Your task to perform on an android device: set the stopwatch Image 0: 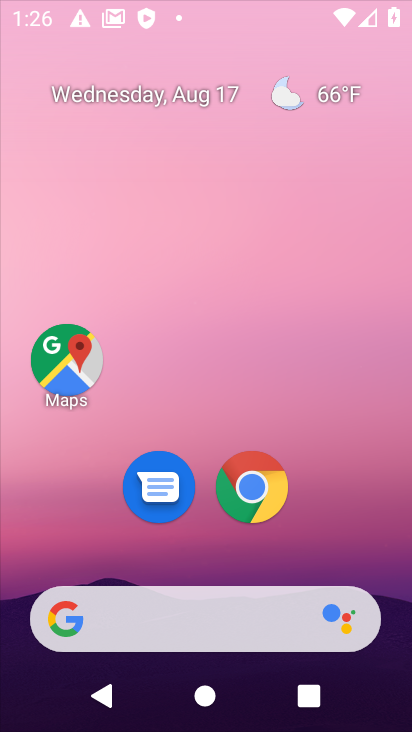
Step 0: press home button
Your task to perform on an android device: set the stopwatch Image 1: 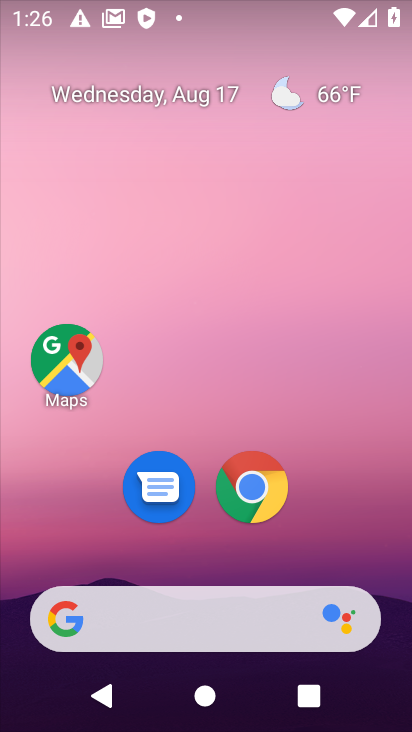
Step 1: drag from (198, 529) to (103, 164)
Your task to perform on an android device: set the stopwatch Image 2: 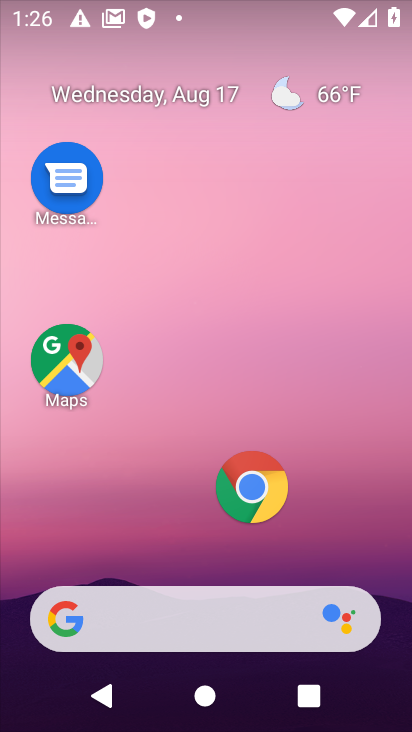
Step 2: drag from (189, 579) to (81, 125)
Your task to perform on an android device: set the stopwatch Image 3: 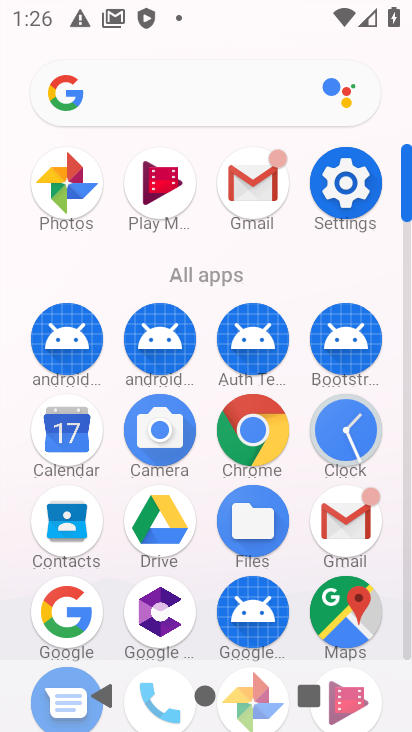
Step 3: click (345, 454)
Your task to perform on an android device: set the stopwatch Image 4: 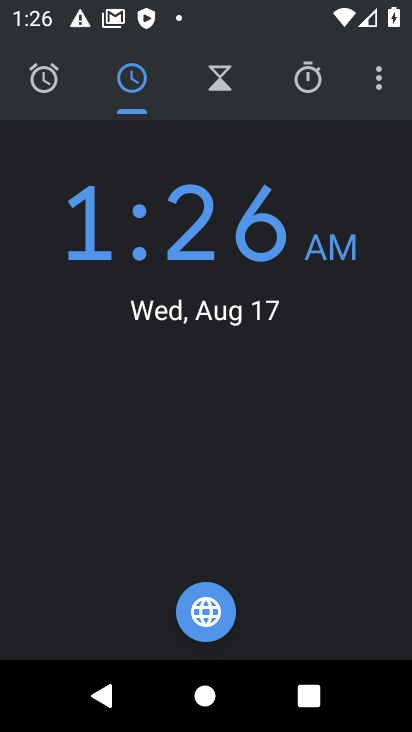
Step 4: click (308, 87)
Your task to perform on an android device: set the stopwatch Image 5: 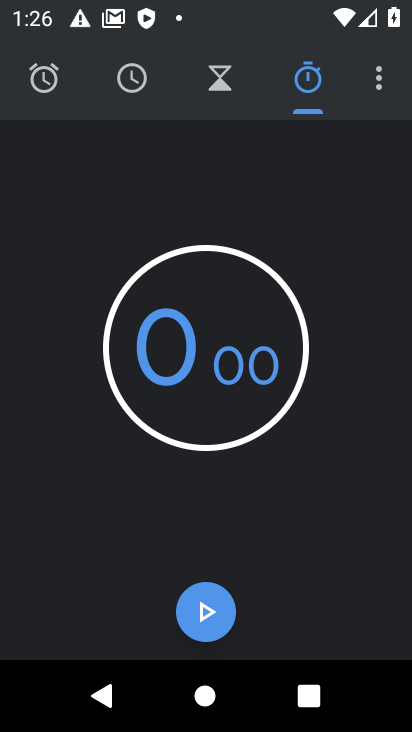
Step 5: click (207, 617)
Your task to perform on an android device: set the stopwatch Image 6: 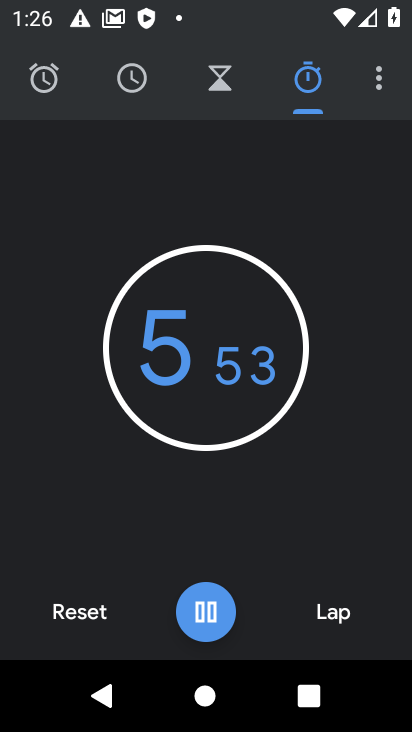
Step 6: task complete